Your task to perform on an android device: Go to battery settings Image 0: 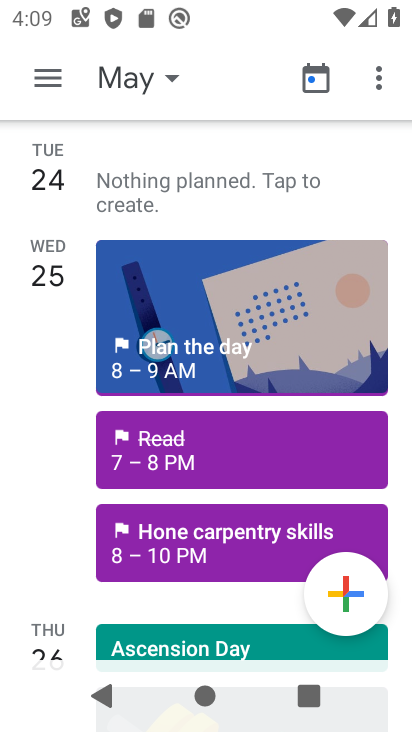
Step 0: press home button
Your task to perform on an android device: Go to battery settings Image 1: 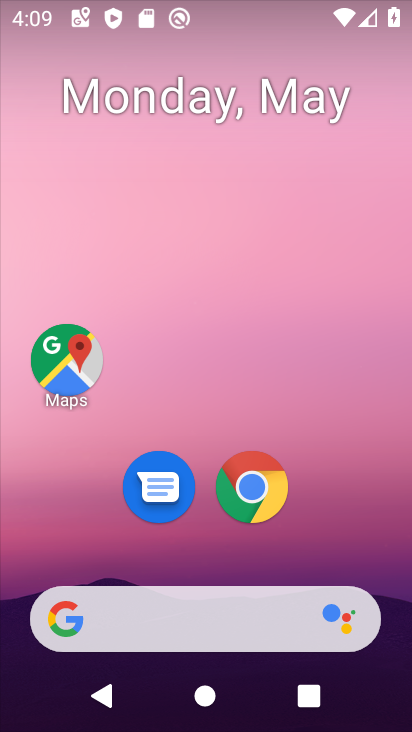
Step 1: drag from (181, 569) to (166, 380)
Your task to perform on an android device: Go to battery settings Image 2: 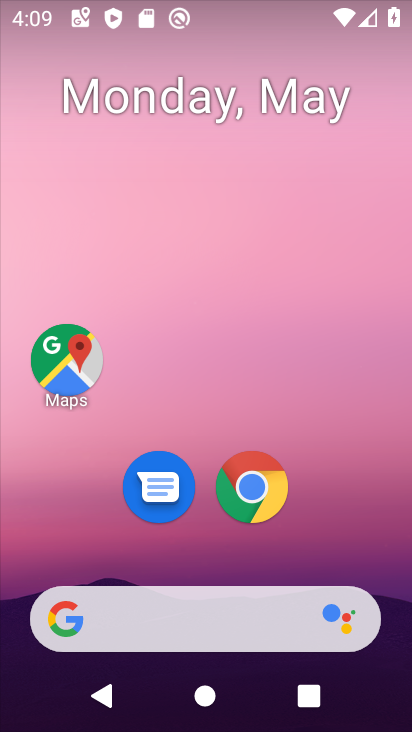
Step 2: drag from (209, 582) to (213, 204)
Your task to perform on an android device: Go to battery settings Image 3: 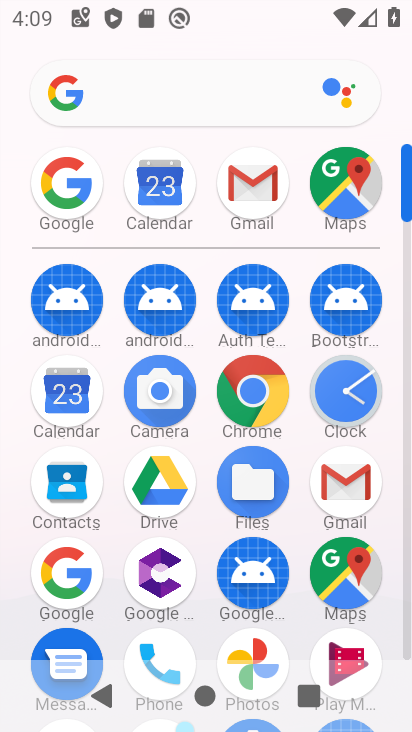
Step 3: drag from (191, 538) to (223, 188)
Your task to perform on an android device: Go to battery settings Image 4: 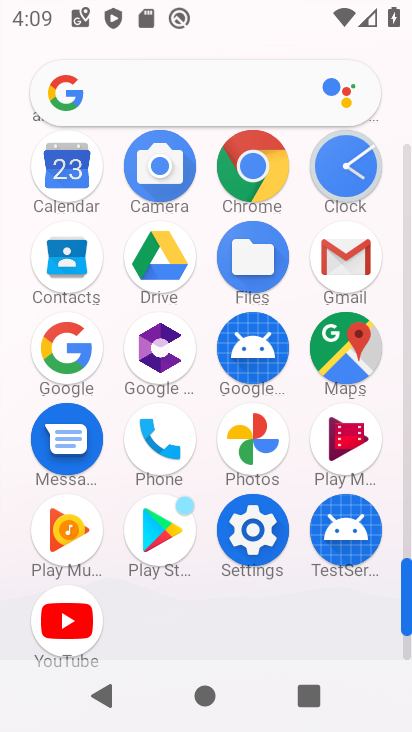
Step 4: click (247, 544)
Your task to perform on an android device: Go to battery settings Image 5: 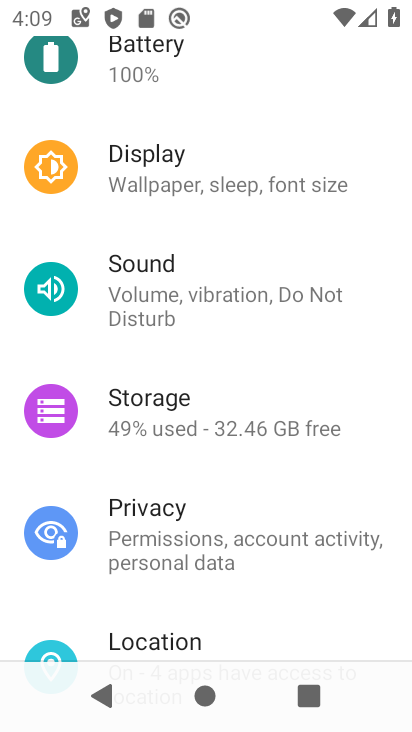
Step 5: drag from (168, 634) to (199, 409)
Your task to perform on an android device: Go to battery settings Image 6: 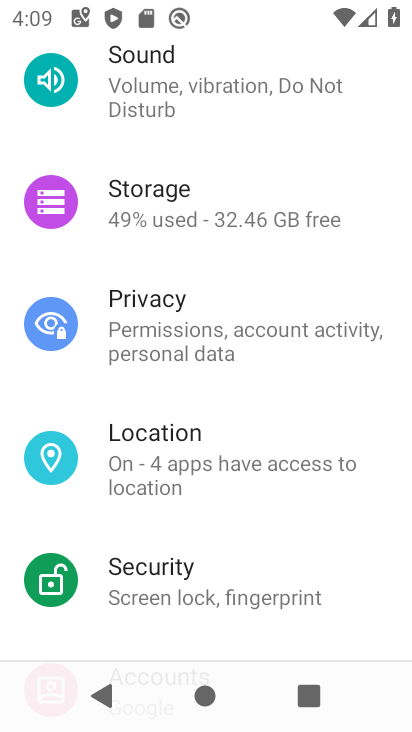
Step 6: drag from (171, 118) to (166, 452)
Your task to perform on an android device: Go to battery settings Image 7: 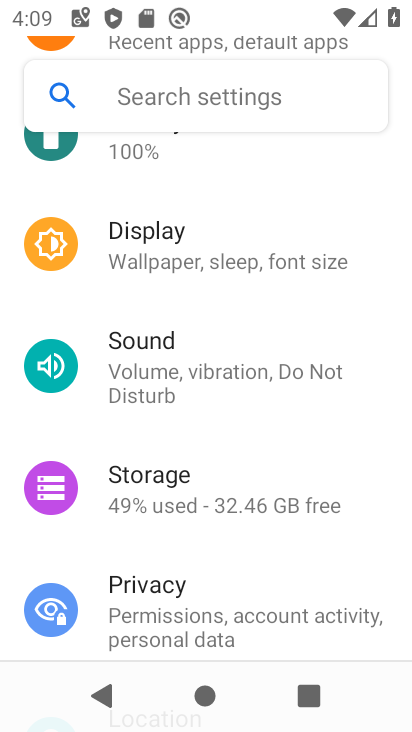
Step 7: drag from (156, 146) to (158, 466)
Your task to perform on an android device: Go to battery settings Image 8: 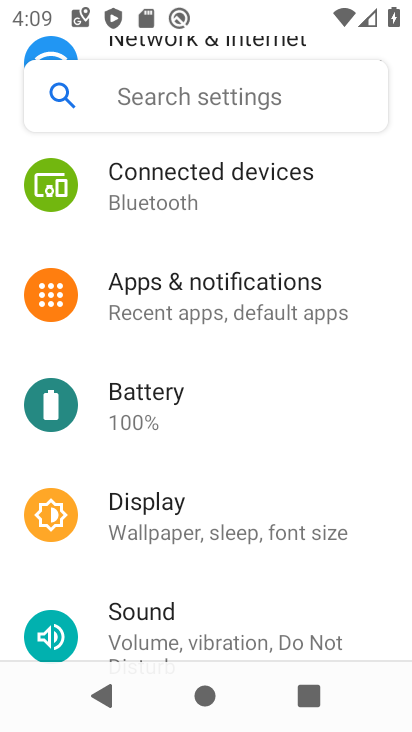
Step 8: click (159, 395)
Your task to perform on an android device: Go to battery settings Image 9: 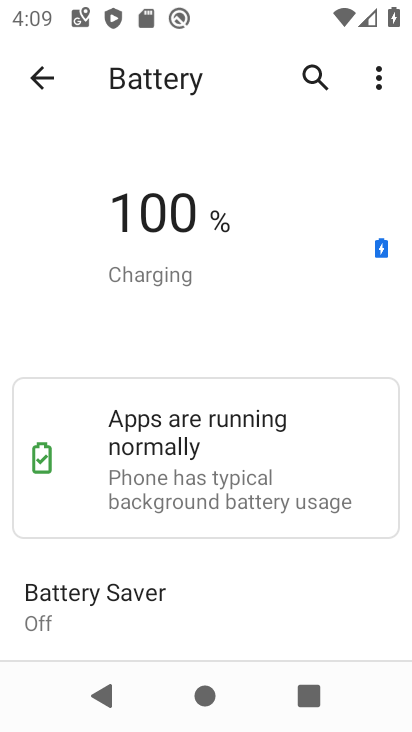
Step 9: task complete